Your task to perform on an android device: change the upload size in google photos Image 0: 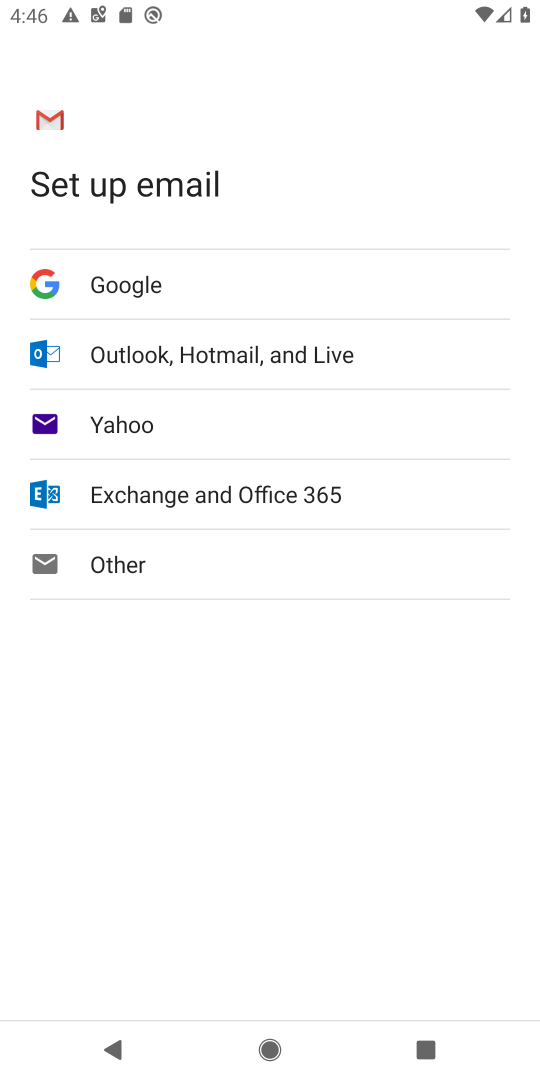
Step 0: press back button
Your task to perform on an android device: change the upload size in google photos Image 1: 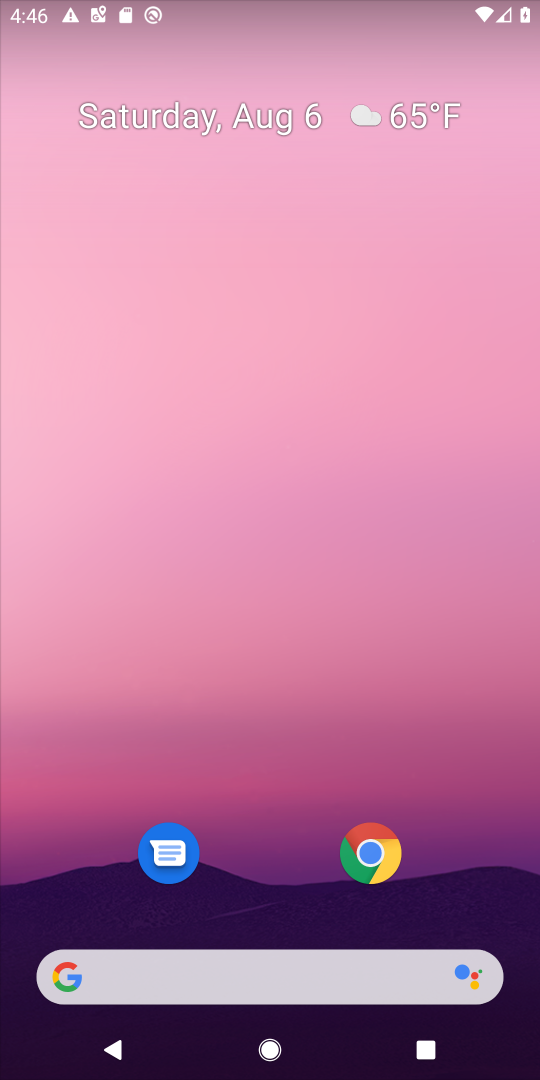
Step 1: drag from (254, 914) to (431, 20)
Your task to perform on an android device: change the upload size in google photos Image 2: 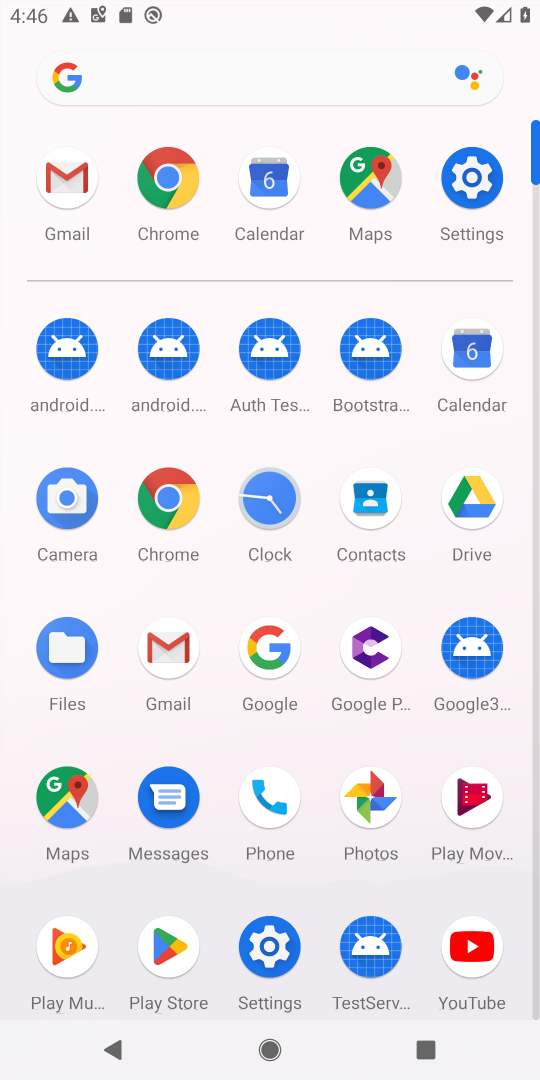
Step 2: click (378, 793)
Your task to perform on an android device: change the upload size in google photos Image 3: 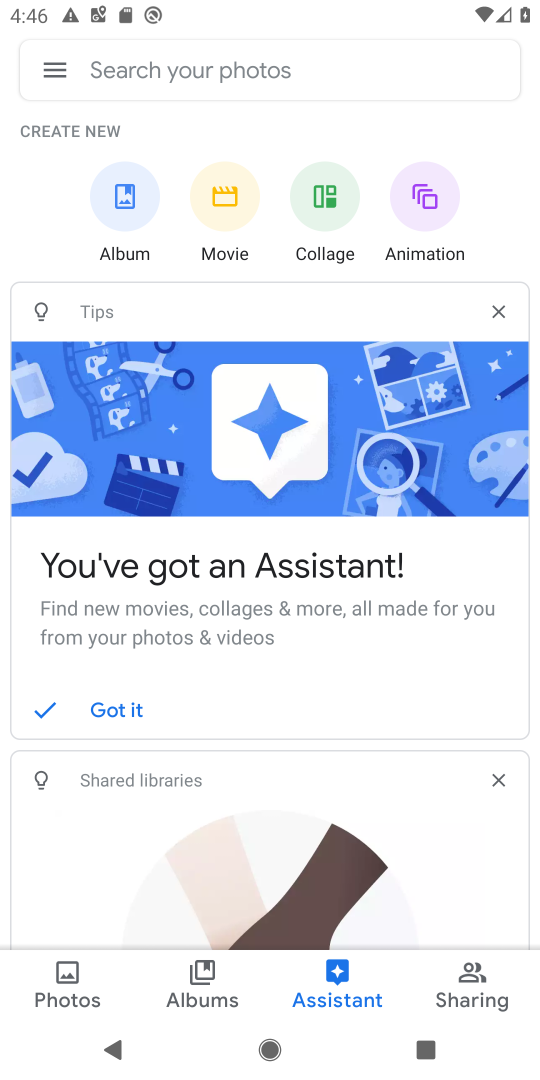
Step 3: click (50, 70)
Your task to perform on an android device: change the upload size in google photos Image 4: 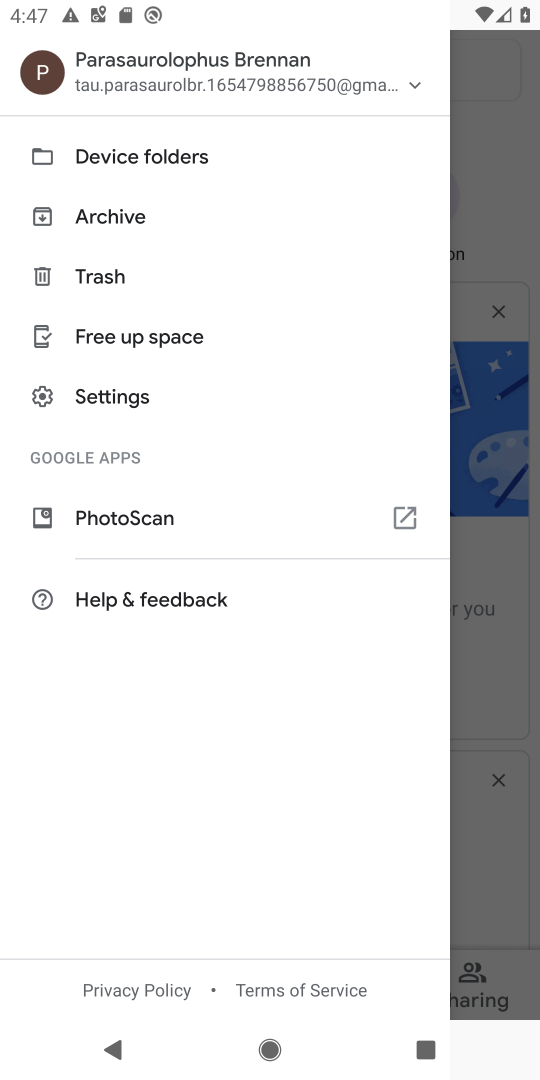
Step 4: click (135, 408)
Your task to perform on an android device: change the upload size in google photos Image 5: 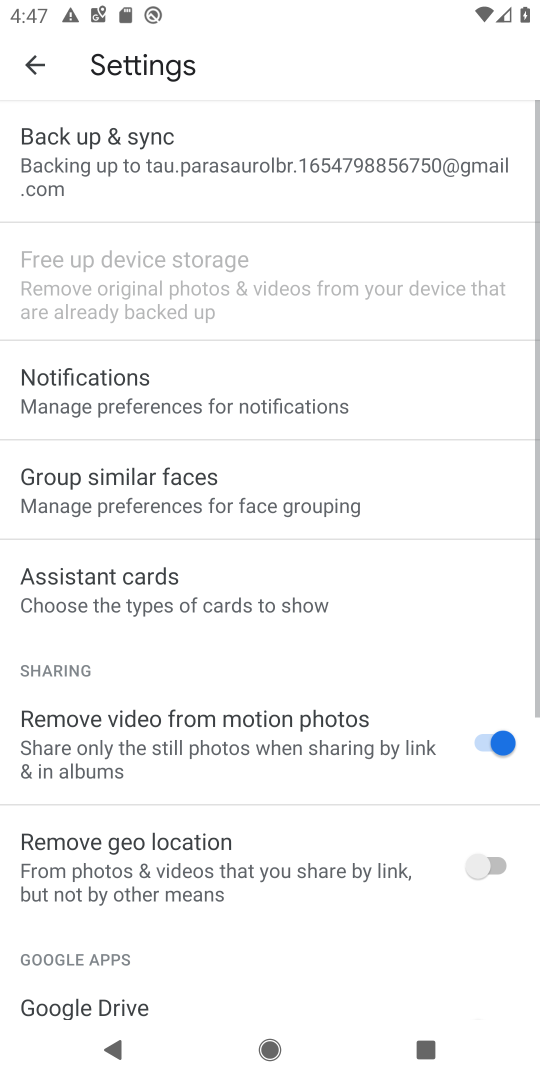
Step 5: click (212, 172)
Your task to perform on an android device: change the upload size in google photos Image 6: 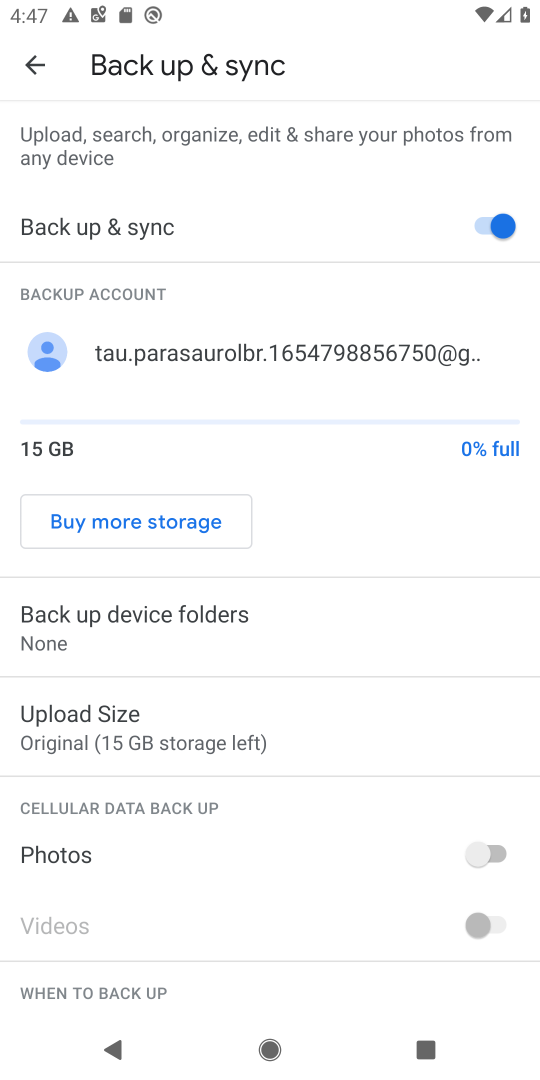
Step 6: click (138, 741)
Your task to perform on an android device: change the upload size in google photos Image 7: 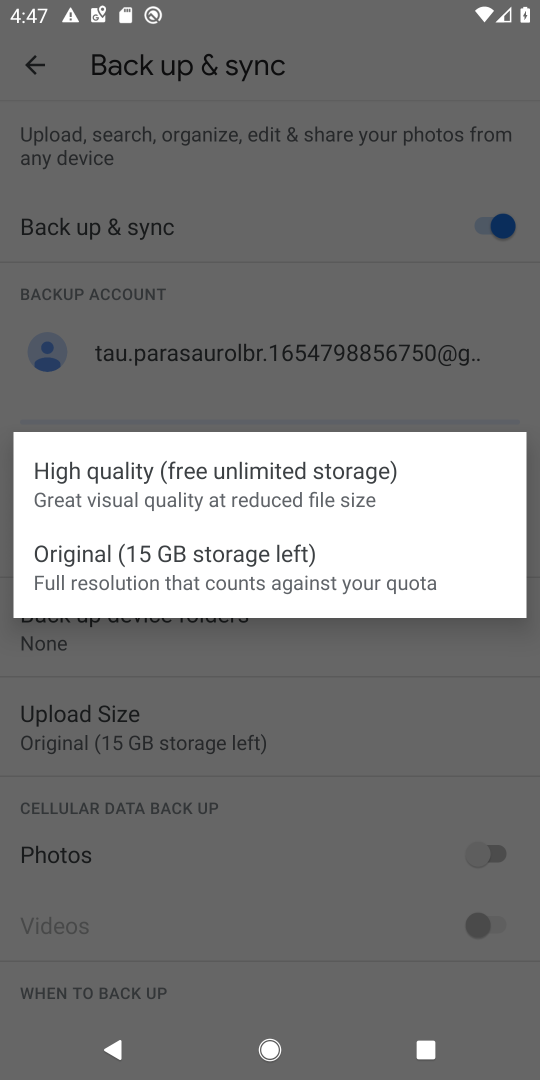
Step 7: click (157, 465)
Your task to perform on an android device: change the upload size in google photos Image 8: 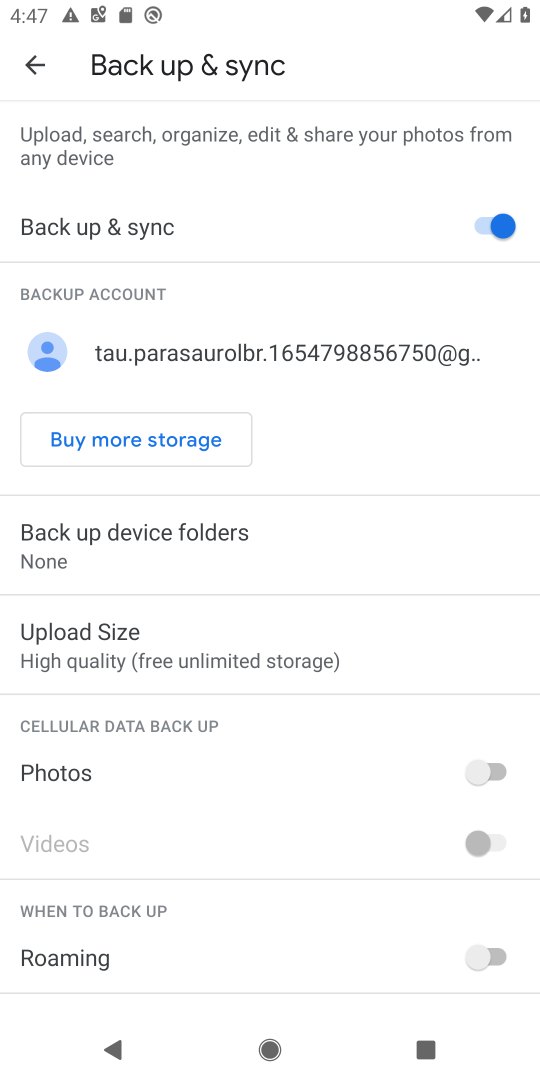
Step 8: task complete